Your task to perform on an android device: Search for sushi restaurants on Maps Image 0: 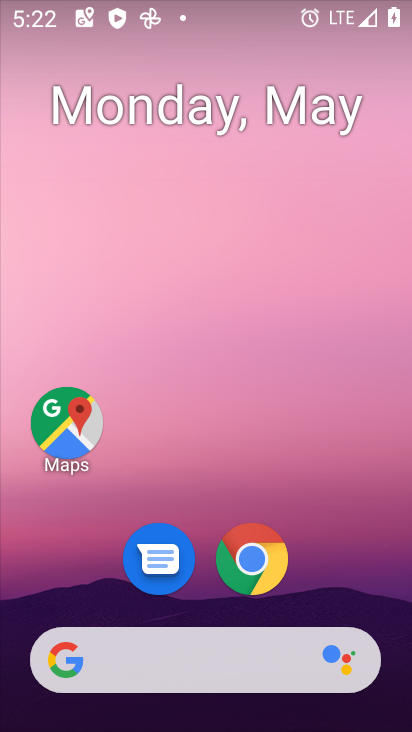
Step 0: drag from (294, 635) to (235, 4)
Your task to perform on an android device: Search for sushi restaurants on Maps Image 1: 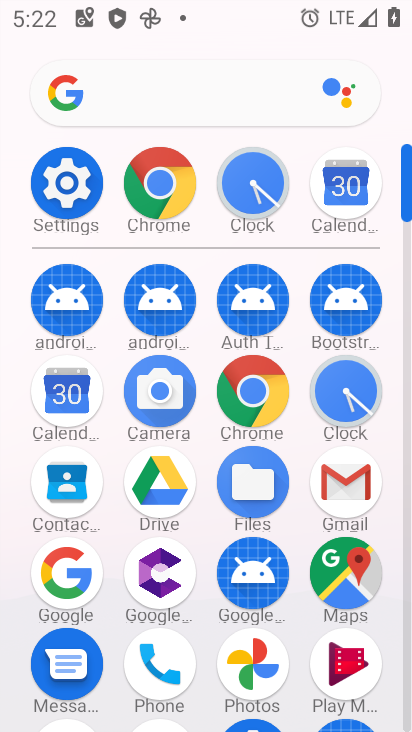
Step 1: click (254, 396)
Your task to perform on an android device: Search for sushi restaurants on Maps Image 2: 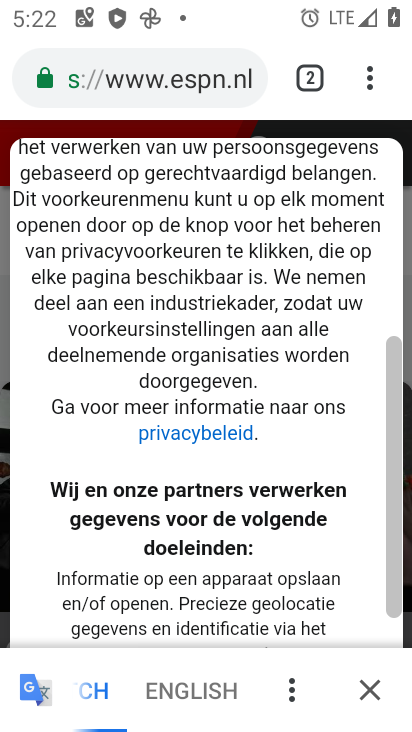
Step 2: press home button
Your task to perform on an android device: Search for sushi restaurants on Maps Image 3: 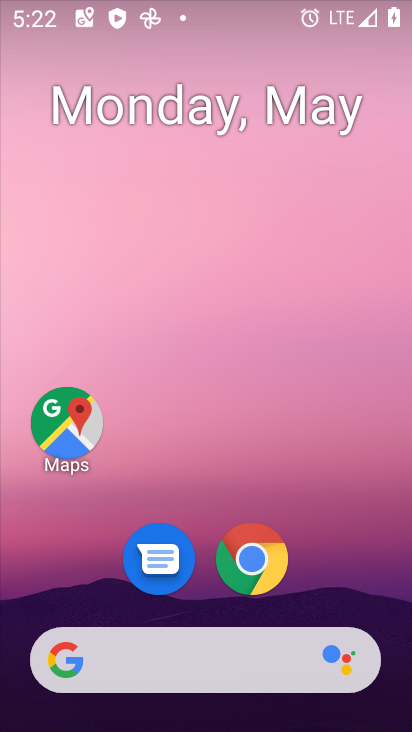
Step 3: drag from (261, 619) to (202, 0)
Your task to perform on an android device: Search for sushi restaurants on Maps Image 4: 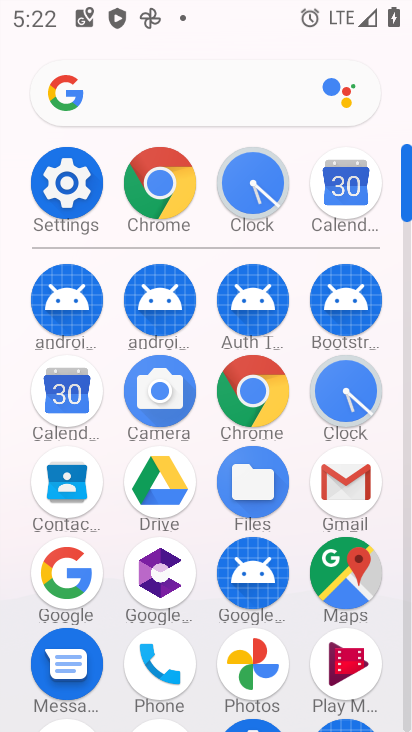
Step 4: click (355, 575)
Your task to perform on an android device: Search for sushi restaurants on Maps Image 5: 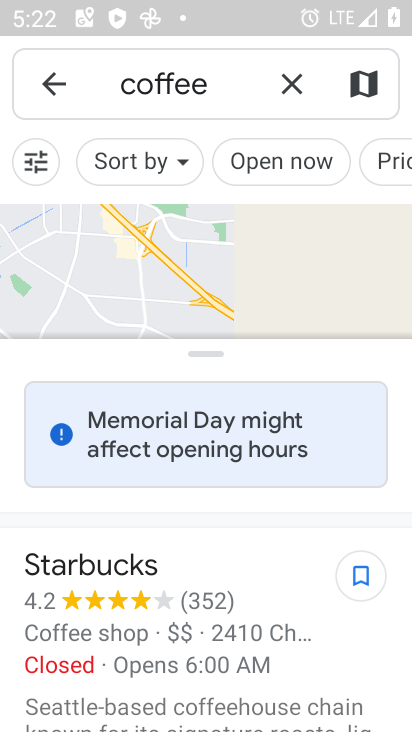
Step 5: click (283, 89)
Your task to perform on an android device: Search for sushi restaurants on Maps Image 6: 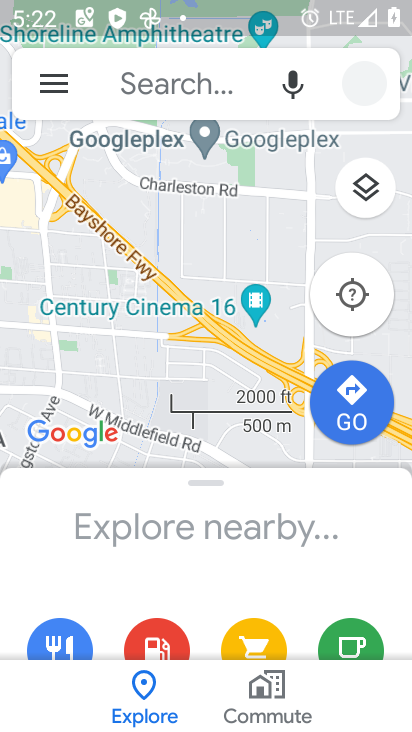
Step 6: click (185, 88)
Your task to perform on an android device: Search for sushi restaurants on Maps Image 7: 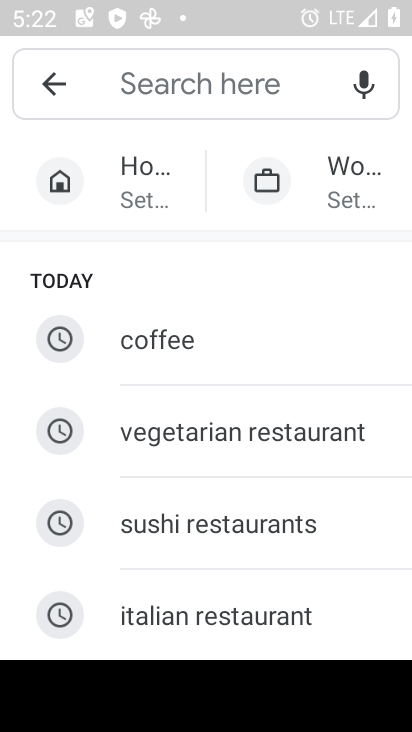
Step 7: click (228, 518)
Your task to perform on an android device: Search for sushi restaurants on Maps Image 8: 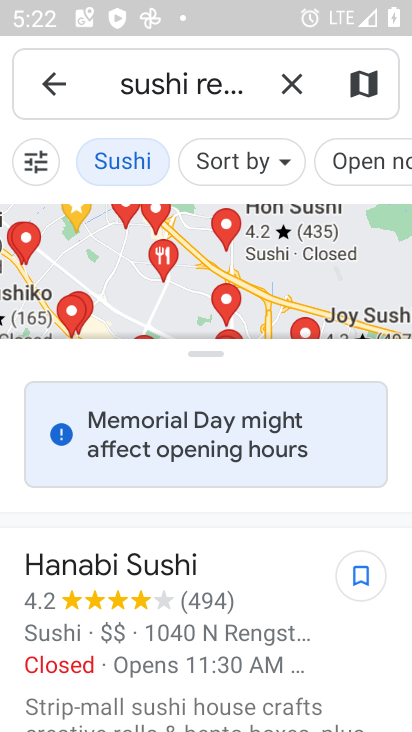
Step 8: task complete